Your task to perform on an android device: Open privacy settings Image 0: 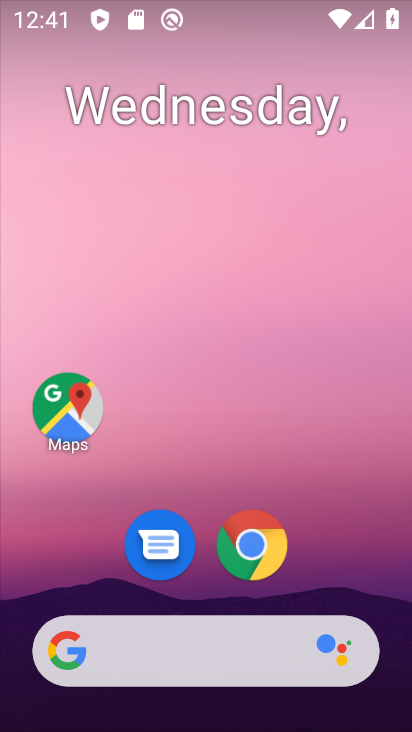
Step 0: drag from (338, 544) to (337, 162)
Your task to perform on an android device: Open privacy settings Image 1: 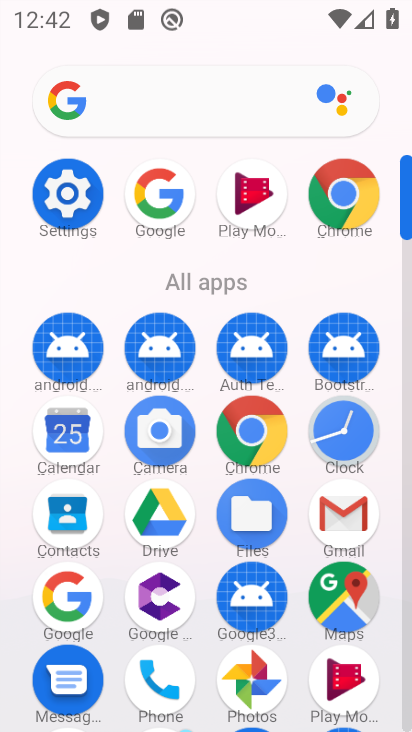
Step 1: click (97, 189)
Your task to perform on an android device: Open privacy settings Image 2: 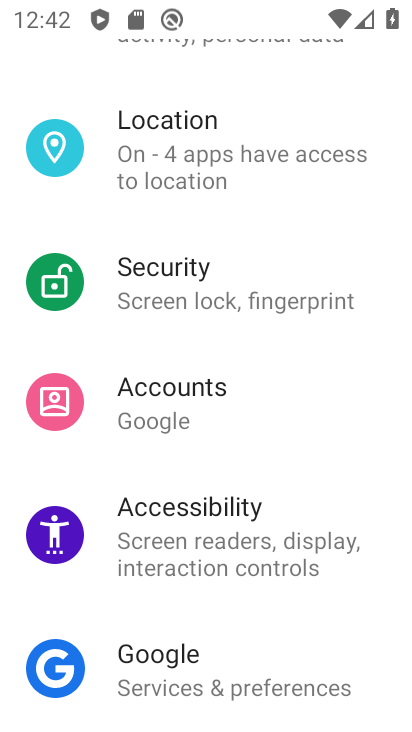
Step 2: drag from (258, 527) to (313, 249)
Your task to perform on an android device: Open privacy settings Image 3: 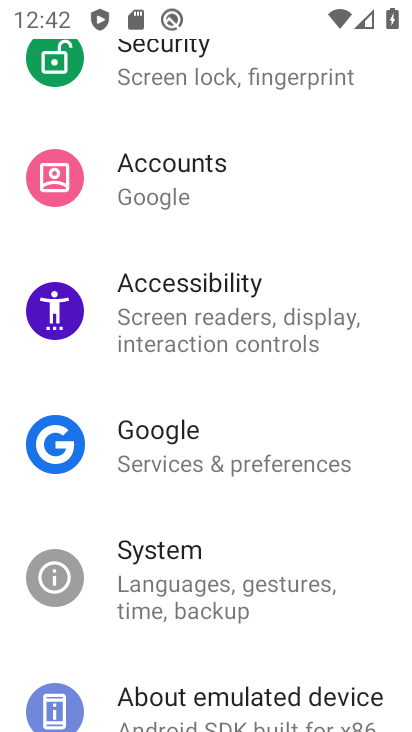
Step 3: drag from (237, 556) to (285, 187)
Your task to perform on an android device: Open privacy settings Image 4: 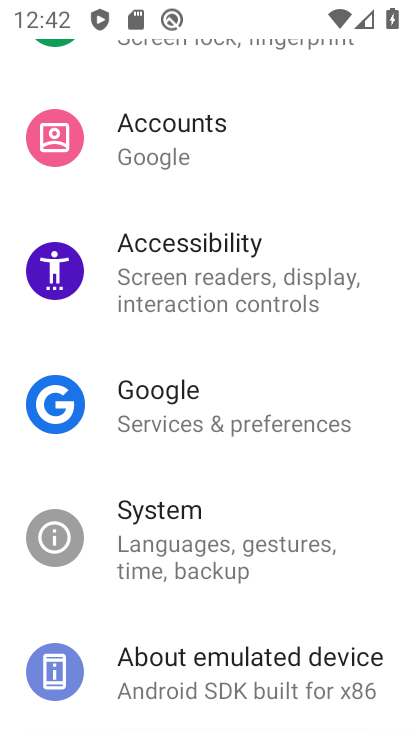
Step 4: drag from (289, 168) to (265, 616)
Your task to perform on an android device: Open privacy settings Image 5: 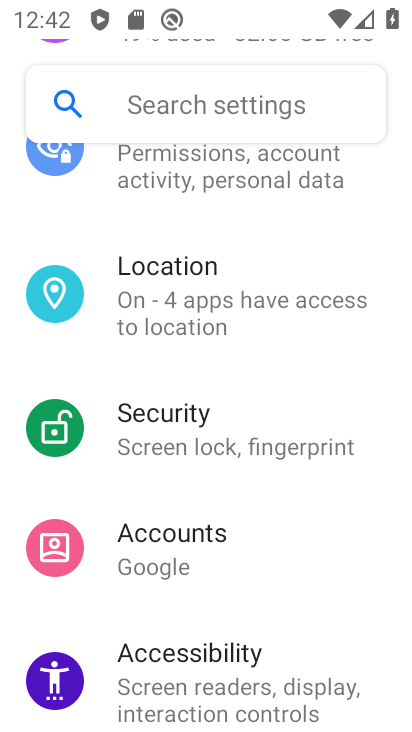
Step 5: drag from (278, 305) to (286, 694)
Your task to perform on an android device: Open privacy settings Image 6: 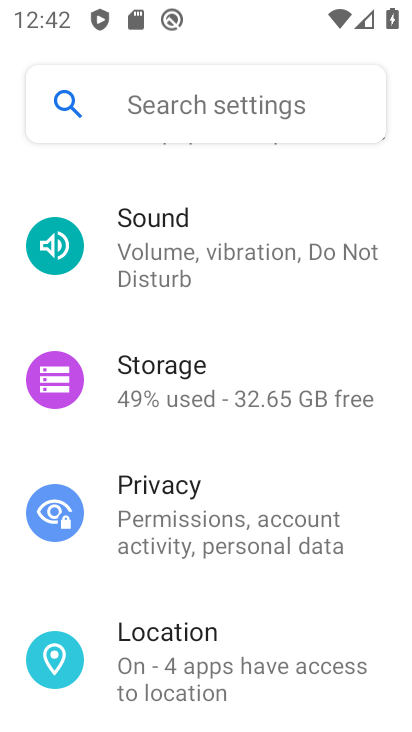
Step 6: click (223, 508)
Your task to perform on an android device: Open privacy settings Image 7: 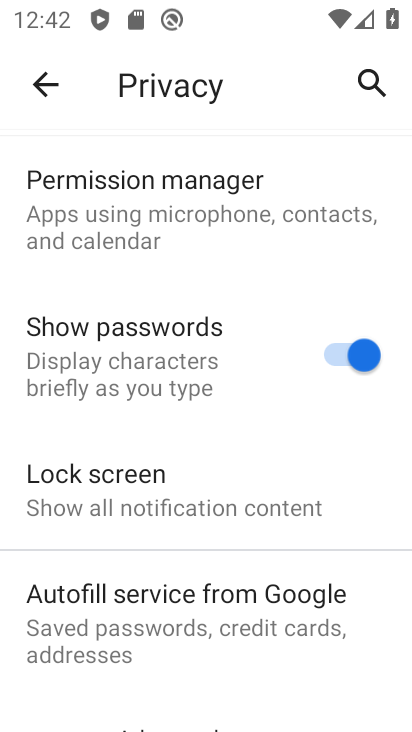
Step 7: task complete